Your task to perform on an android device: check storage Image 0: 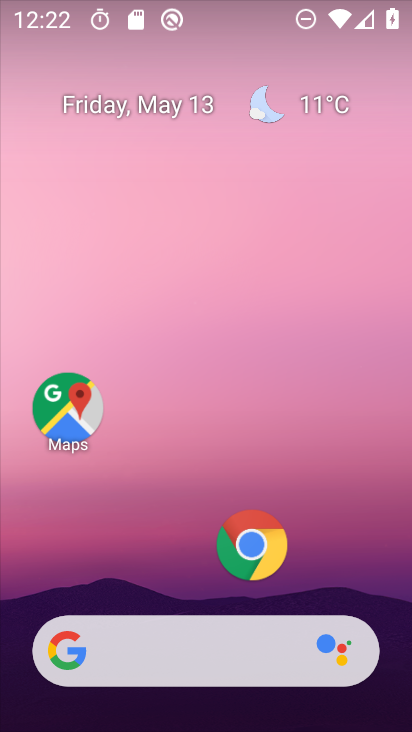
Step 0: drag from (199, 590) to (191, 66)
Your task to perform on an android device: check storage Image 1: 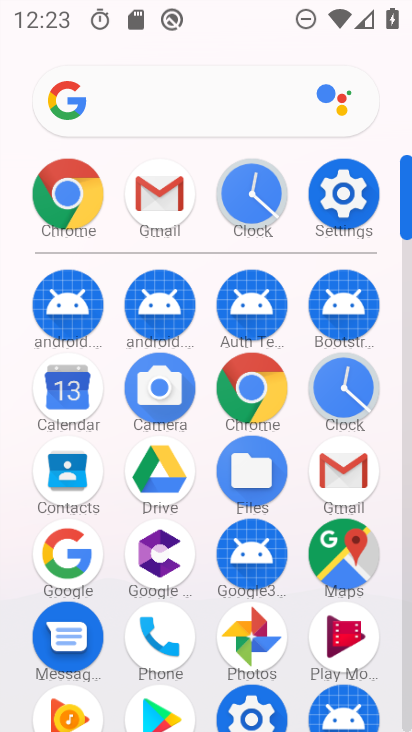
Step 1: click (341, 184)
Your task to perform on an android device: check storage Image 2: 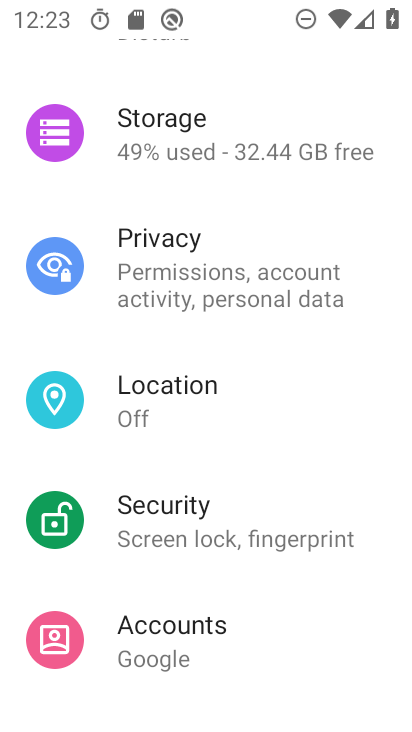
Step 2: click (102, 124)
Your task to perform on an android device: check storage Image 3: 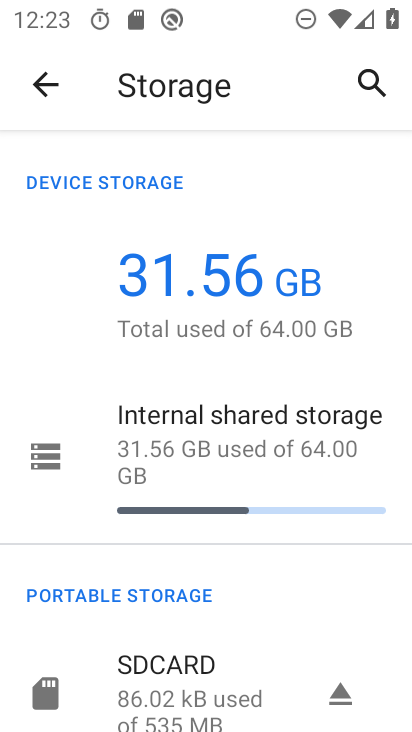
Step 3: task complete